Your task to perform on an android device: turn pop-ups off in chrome Image 0: 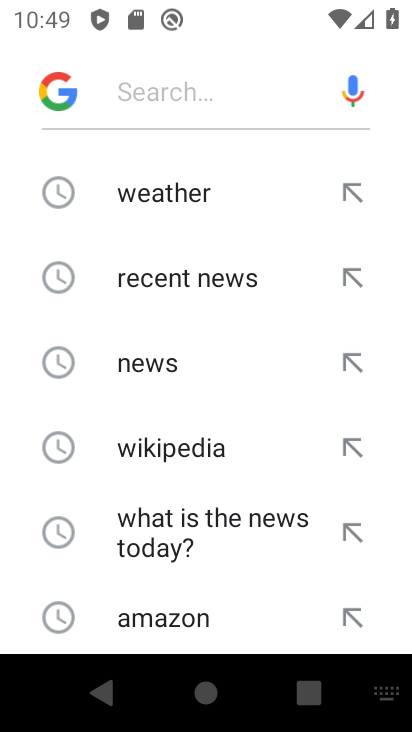
Step 0: press home button
Your task to perform on an android device: turn pop-ups off in chrome Image 1: 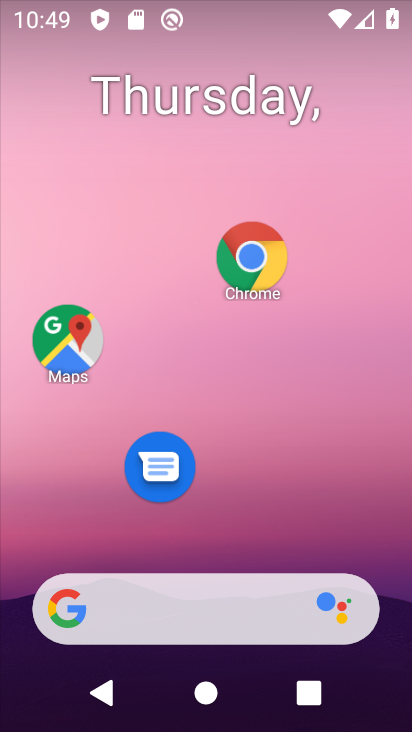
Step 1: click (254, 250)
Your task to perform on an android device: turn pop-ups off in chrome Image 2: 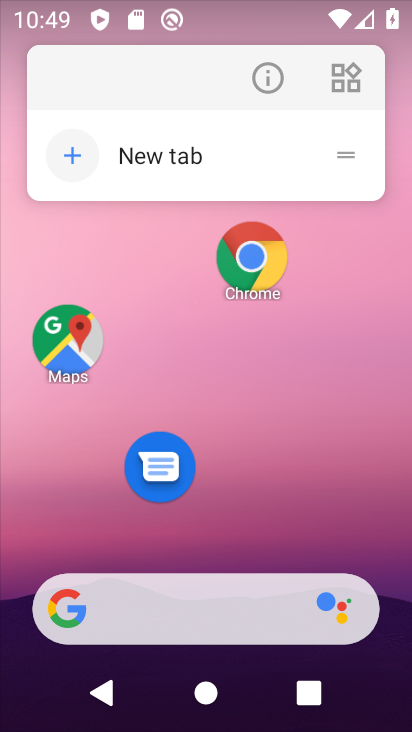
Step 2: click (244, 261)
Your task to perform on an android device: turn pop-ups off in chrome Image 3: 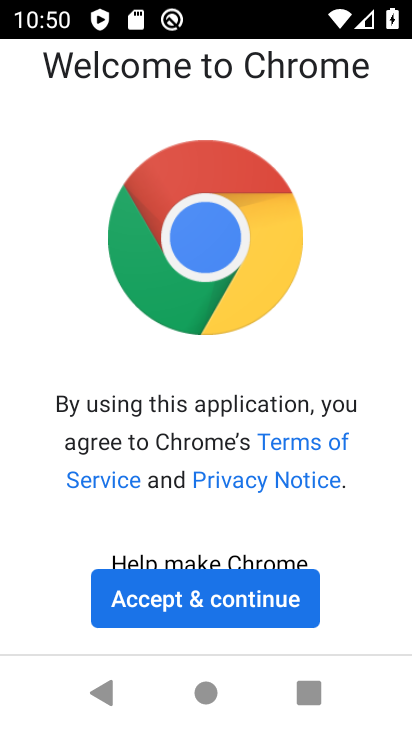
Step 3: click (202, 587)
Your task to perform on an android device: turn pop-ups off in chrome Image 4: 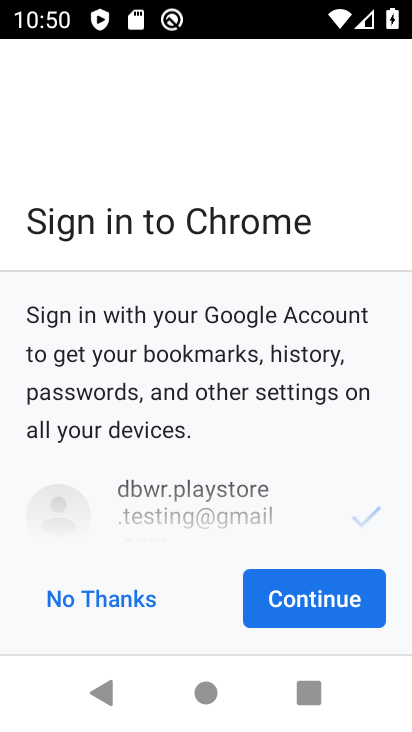
Step 4: click (277, 603)
Your task to perform on an android device: turn pop-ups off in chrome Image 5: 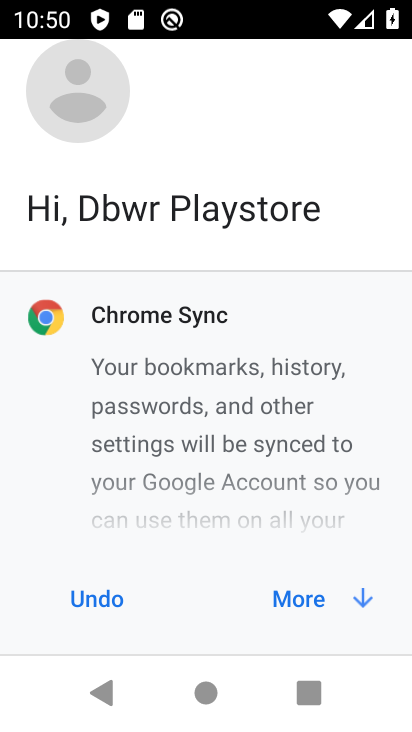
Step 5: click (297, 604)
Your task to perform on an android device: turn pop-ups off in chrome Image 6: 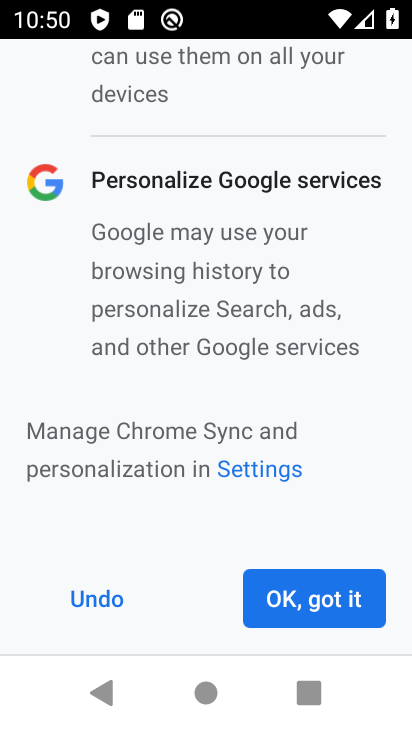
Step 6: click (295, 600)
Your task to perform on an android device: turn pop-ups off in chrome Image 7: 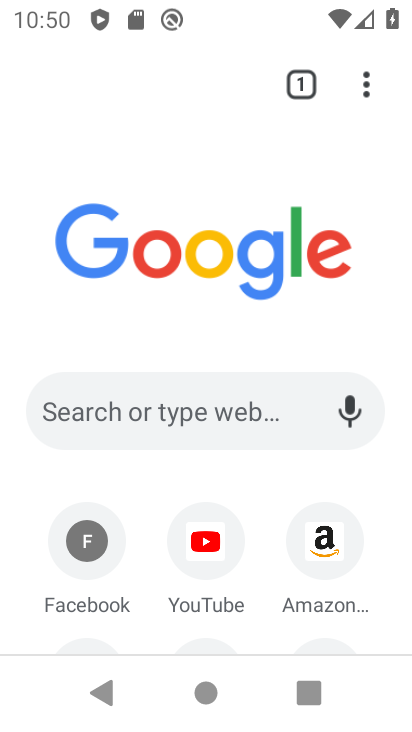
Step 7: click (368, 82)
Your task to perform on an android device: turn pop-ups off in chrome Image 8: 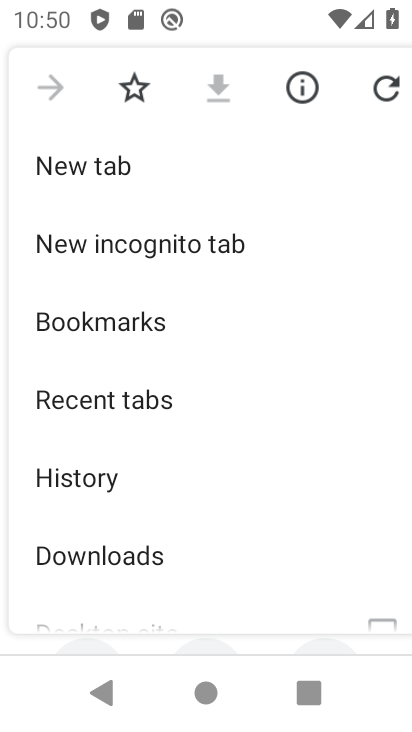
Step 8: drag from (98, 492) to (142, 256)
Your task to perform on an android device: turn pop-ups off in chrome Image 9: 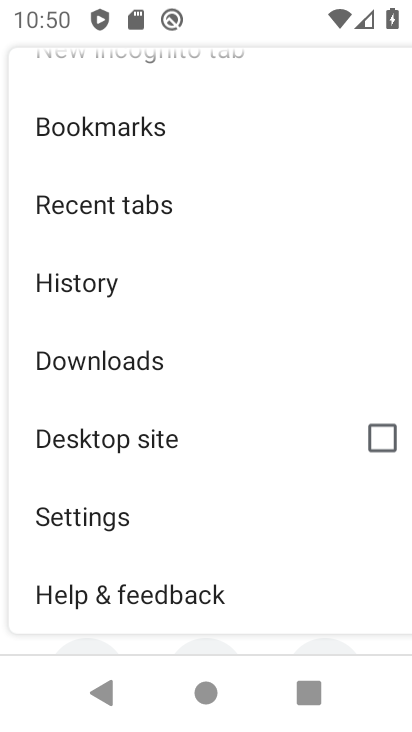
Step 9: click (70, 521)
Your task to perform on an android device: turn pop-ups off in chrome Image 10: 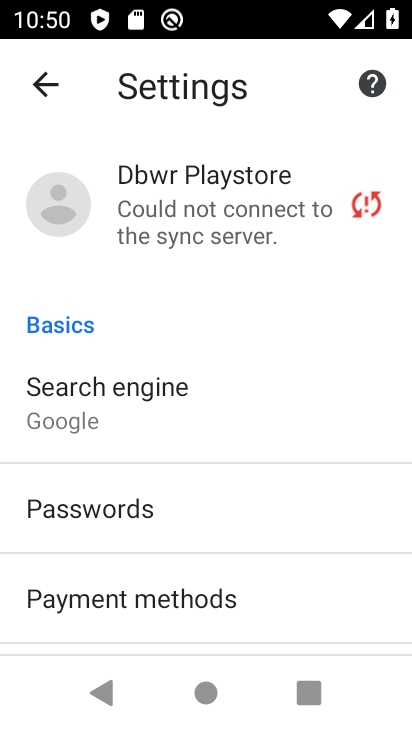
Step 10: drag from (165, 554) to (221, 201)
Your task to perform on an android device: turn pop-ups off in chrome Image 11: 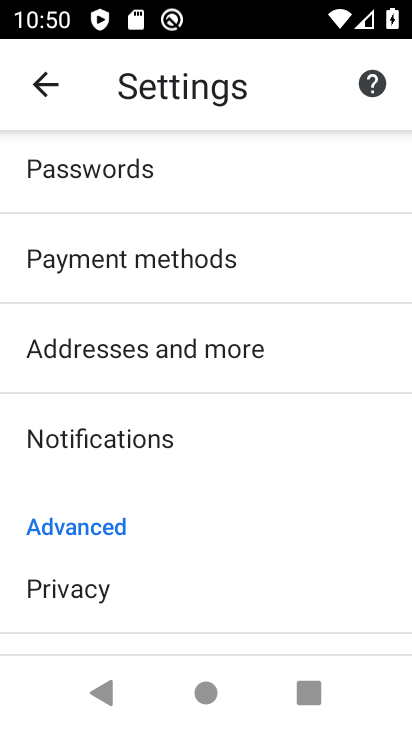
Step 11: drag from (140, 583) to (196, 224)
Your task to perform on an android device: turn pop-ups off in chrome Image 12: 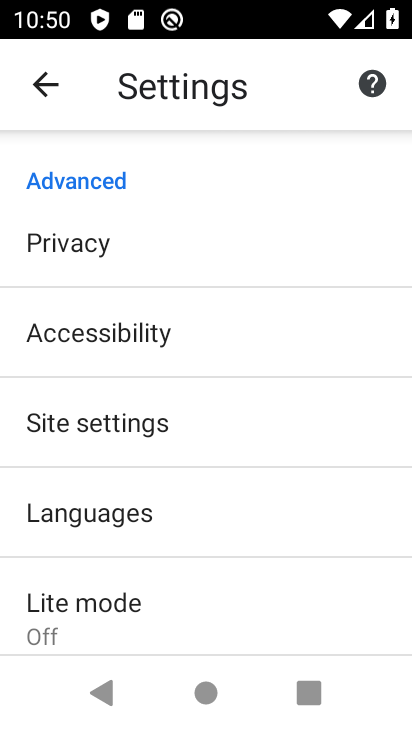
Step 12: click (133, 434)
Your task to perform on an android device: turn pop-ups off in chrome Image 13: 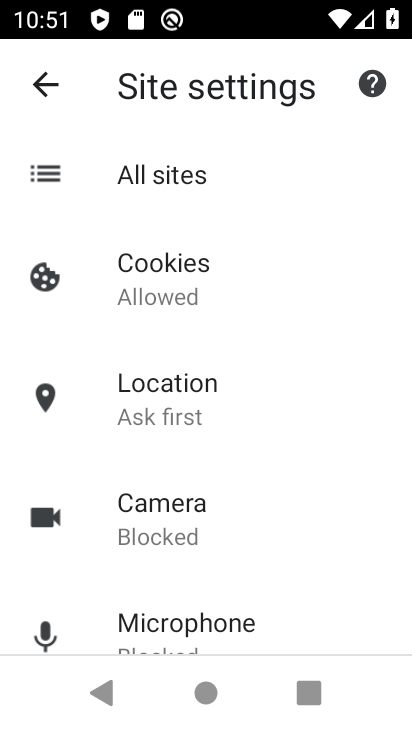
Step 13: drag from (183, 489) to (192, 184)
Your task to perform on an android device: turn pop-ups off in chrome Image 14: 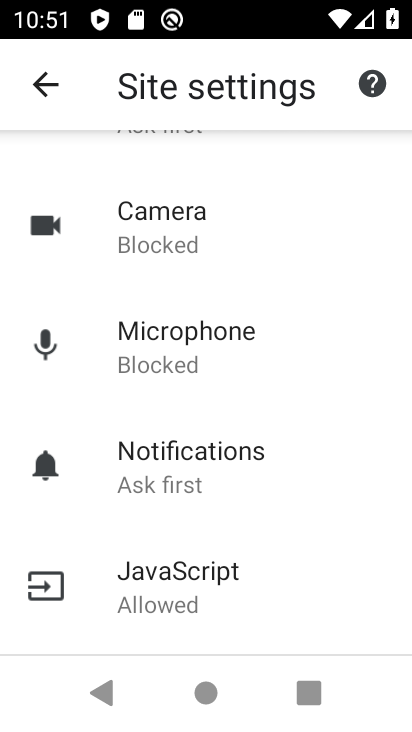
Step 14: drag from (240, 569) to (243, 283)
Your task to perform on an android device: turn pop-ups off in chrome Image 15: 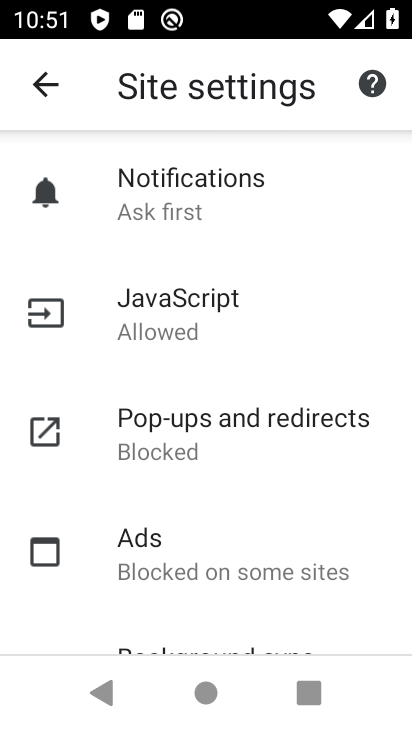
Step 15: click (204, 446)
Your task to perform on an android device: turn pop-ups off in chrome Image 16: 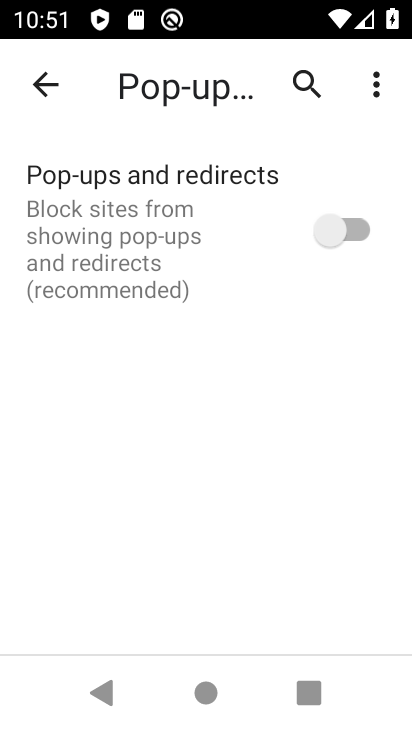
Step 16: task complete